Your task to perform on an android device: turn on showing notifications on the lock screen Image 0: 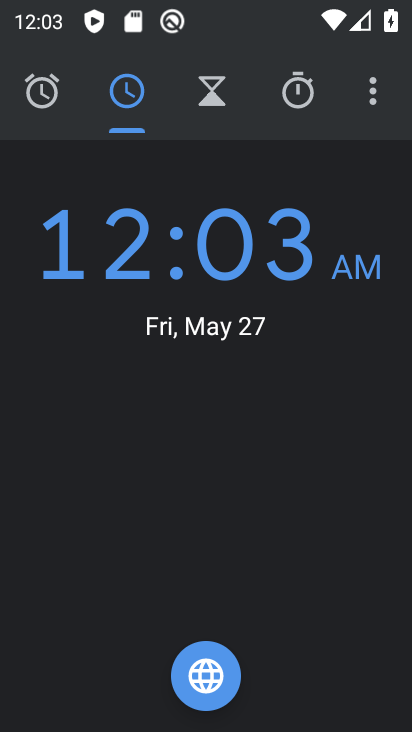
Step 0: press home button
Your task to perform on an android device: turn on showing notifications on the lock screen Image 1: 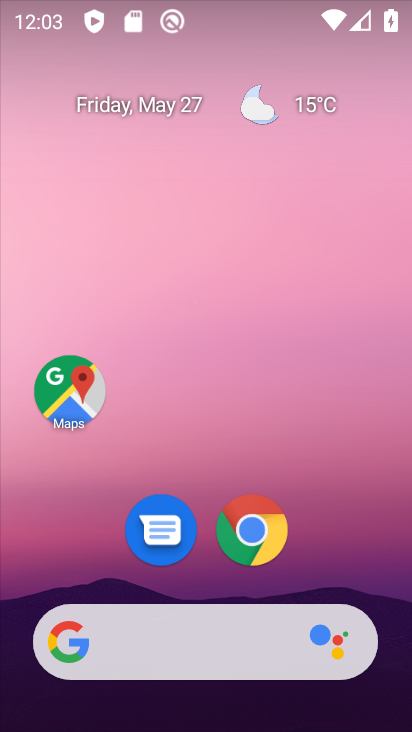
Step 1: drag from (99, 595) to (191, 147)
Your task to perform on an android device: turn on showing notifications on the lock screen Image 2: 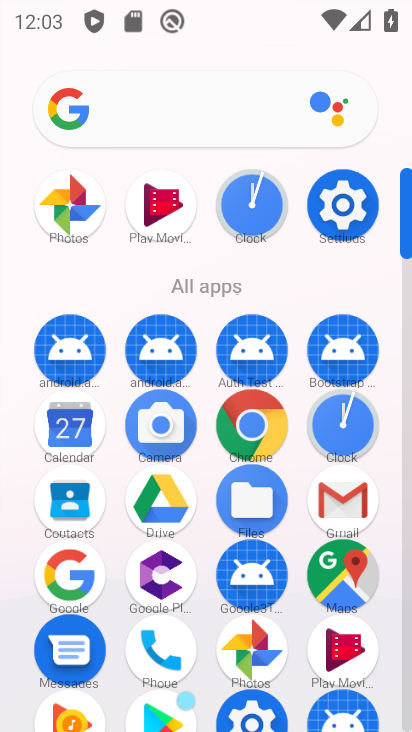
Step 2: drag from (159, 486) to (248, 168)
Your task to perform on an android device: turn on showing notifications on the lock screen Image 3: 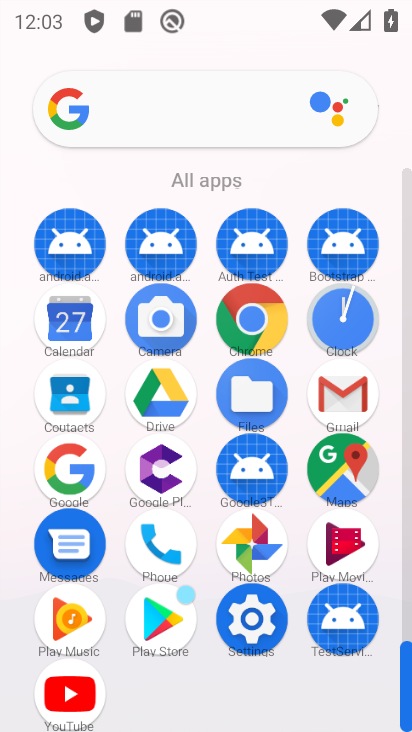
Step 3: click (267, 636)
Your task to perform on an android device: turn on showing notifications on the lock screen Image 4: 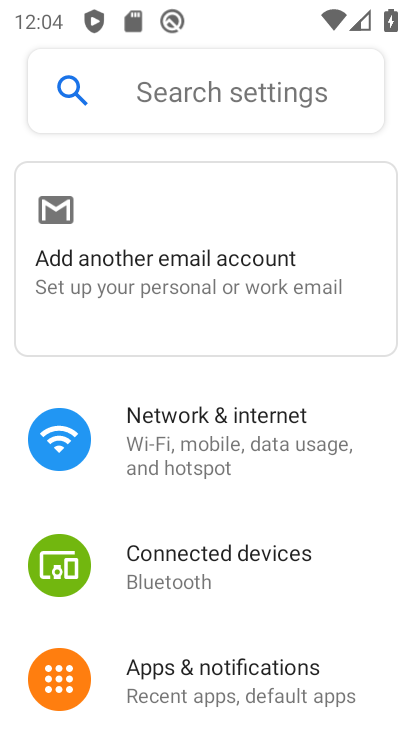
Step 4: drag from (233, 652) to (292, 345)
Your task to perform on an android device: turn on showing notifications on the lock screen Image 5: 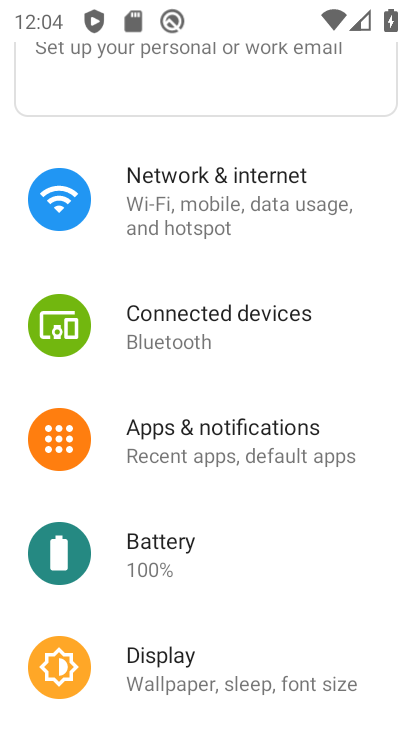
Step 5: click (255, 465)
Your task to perform on an android device: turn on showing notifications on the lock screen Image 6: 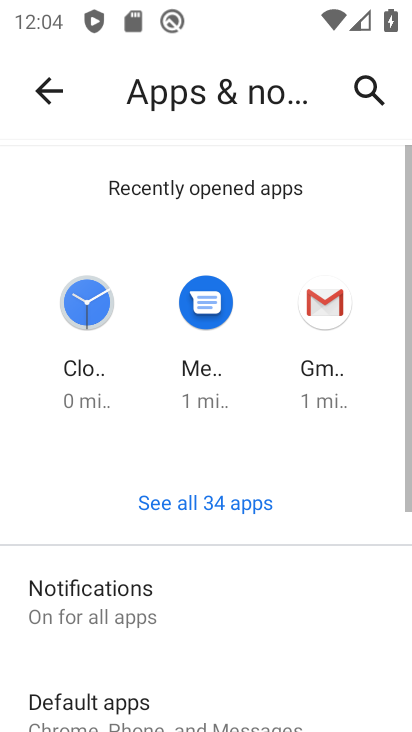
Step 6: drag from (203, 598) to (271, 356)
Your task to perform on an android device: turn on showing notifications on the lock screen Image 7: 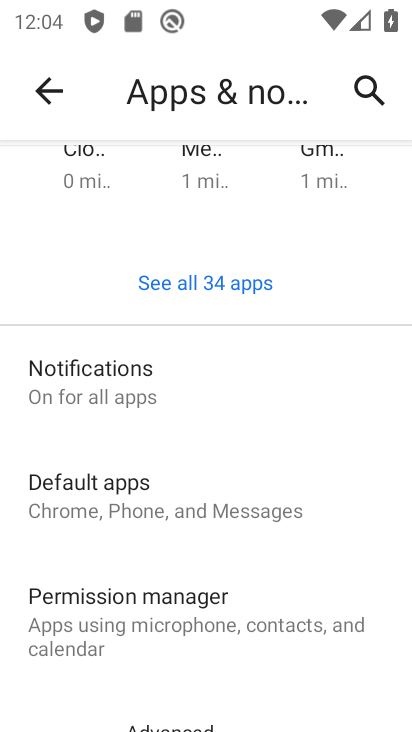
Step 7: click (226, 393)
Your task to perform on an android device: turn on showing notifications on the lock screen Image 8: 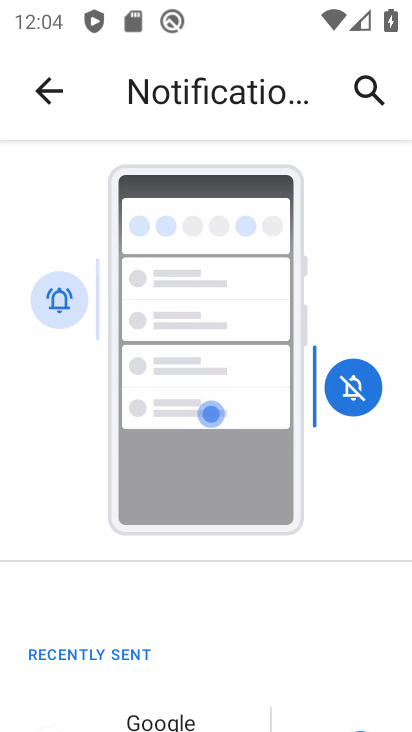
Step 8: drag from (212, 593) to (320, 178)
Your task to perform on an android device: turn on showing notifications on the lock screen Image 9: 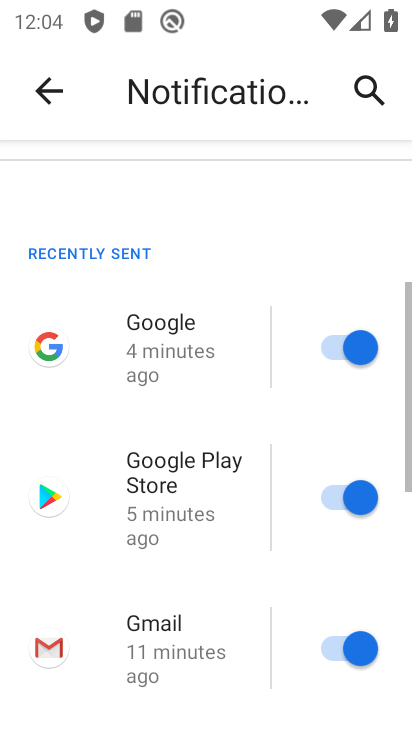
Step 9: drag from (117, 574) to (268, 75)
Your task to perform on an android device: turn on showing notifications on the lock screen Image 10: 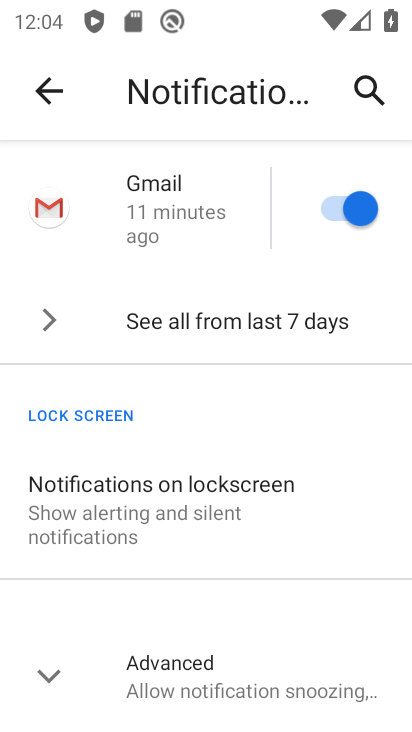
Step 10: click (247, 503)
Your task to perform on an android device: turn on showing notifications on the lock screen Image 11: 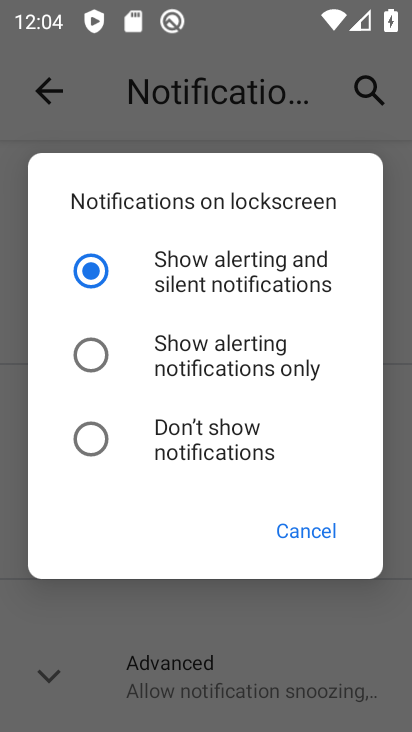
Step 11: task complete